Your task to perform on an android device: Open calendar and show me the third week of next month Image 0: 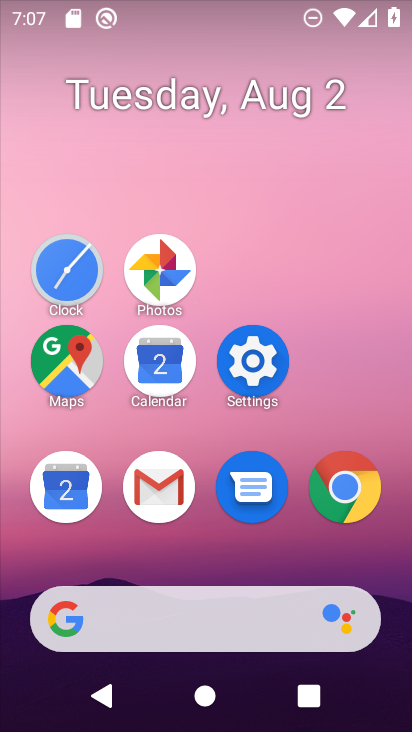
Step 0: click (156, 357)
Your task to perform on an android device: Open calendar and show me the third week of next month Image 1: 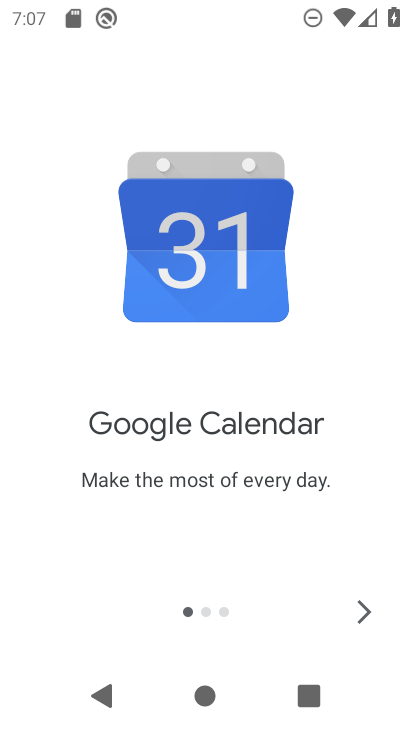
Step 1: click (365, 609)
Your task to perform on an android device: Open calendar and show me the third week of next month Image 2: 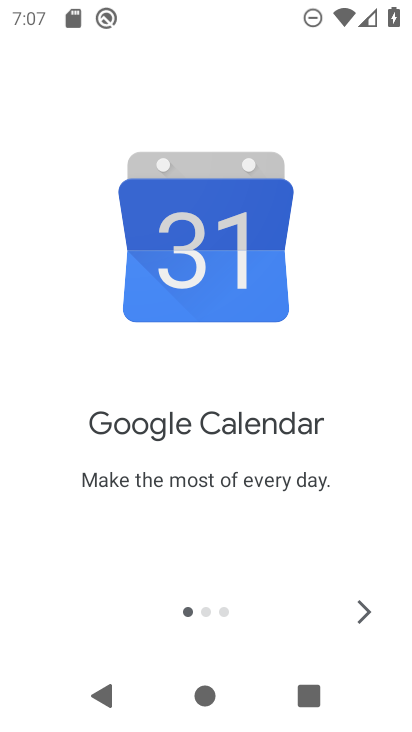
Step 2: click (365, 609)
Your task to perform on an android device: Open calendar and show me the third week of next month Image 3: 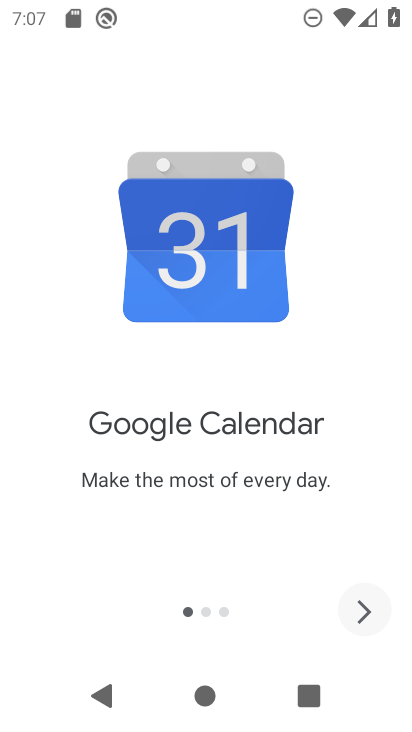
Step 3: click (365, 609)
Your task to perform on an android device: Open calendar and show me the third week of next month Image 4: 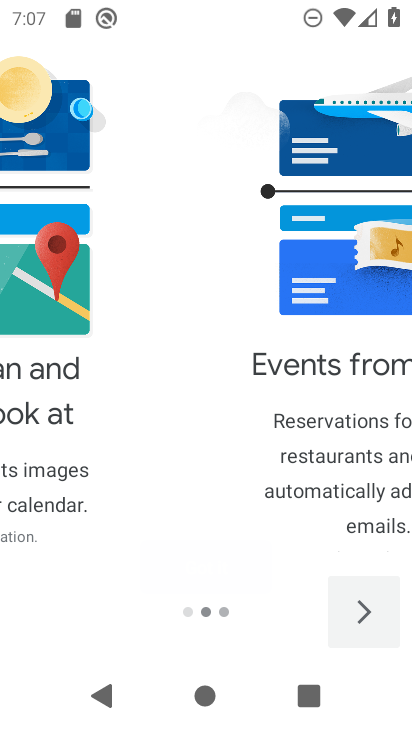
Step 4: click (365, 609)
Your task to perform on an android device: Open calendar and show me the third week of next month Image 5: 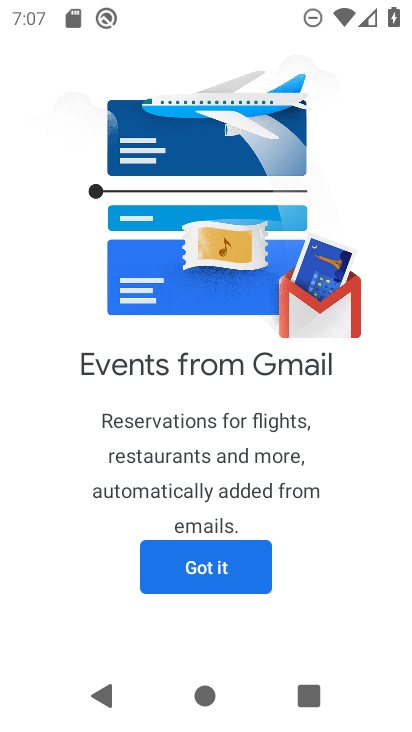
Step 5: click (212, 567)
Your task to perform on an android device: Open calendar and show me the third week of next month Image 6: 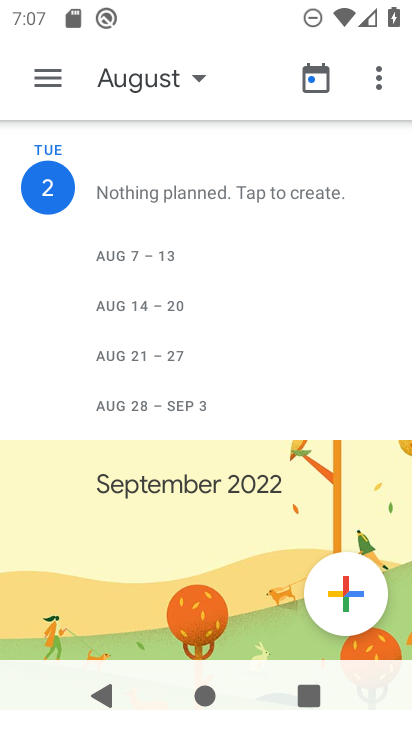
Step 6: click (43, 71)
Your task to perform on an android device: Open calendar and show me the third week of next month Image 7: 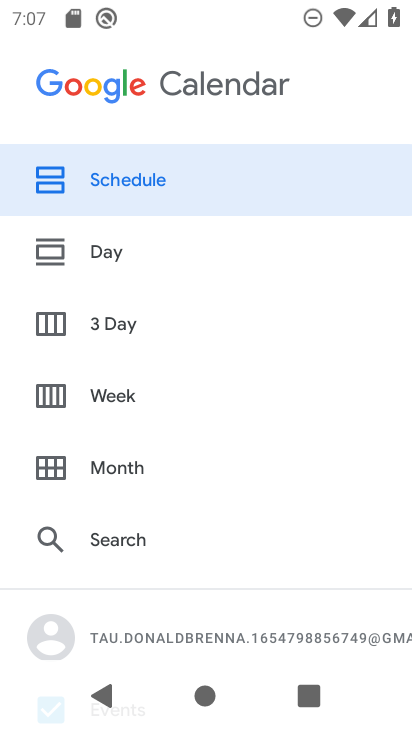
Step 7: click (115, 395)
Your task to perform on an android device: Open calendar and show me the third week of next month Image 8: 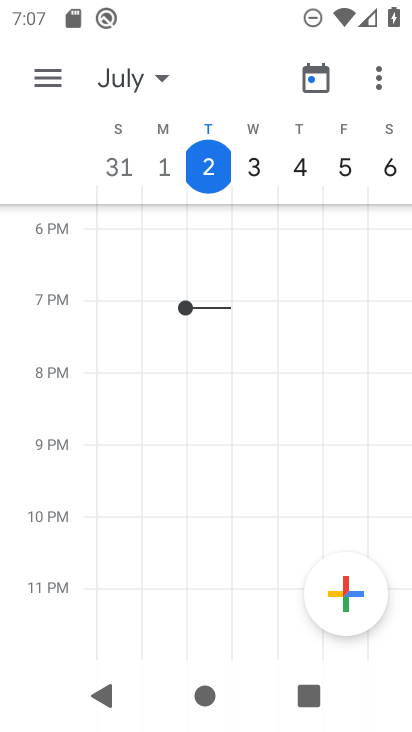
Step 8: click (165, 77)
Your task to perform on an android device: Open calendar and show me the third week of next month Image 9: 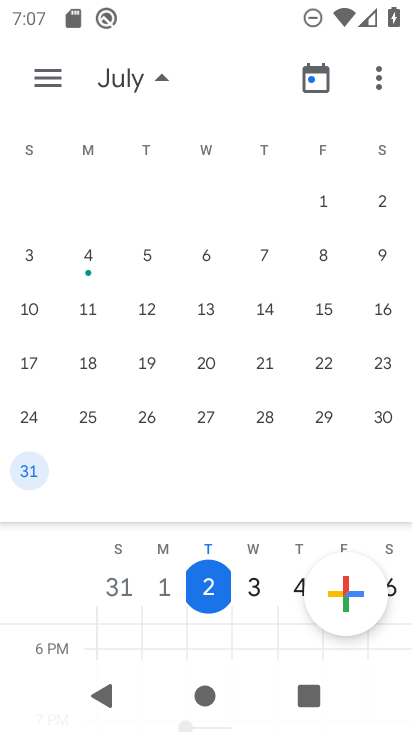
Step 9: drag from (387, 283) to (33, 284)
Your task to perform on an android device: Open calendar and show me the third week of next month Image 10: 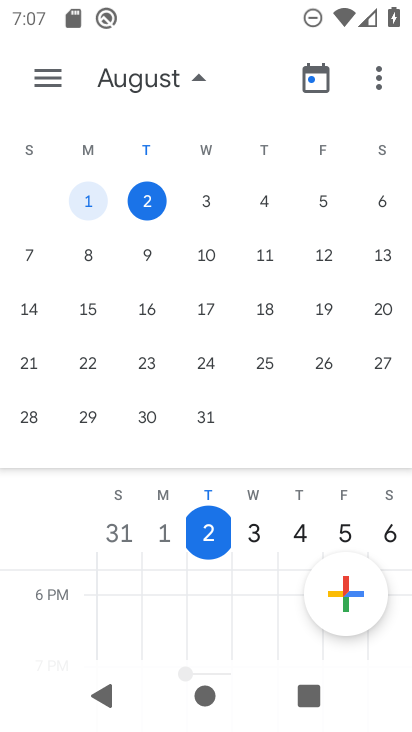
Step 10: drag from (387, 299) to (26, 306)
Your task to perform on an android device: Open calendar and show me the third week of next month Image 11: 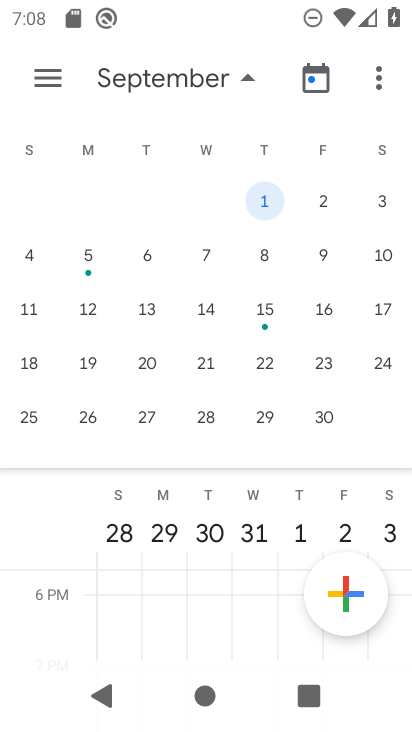
Step 11: click (153, 306)
Your task to perform on an android device: Open calendar and show me the third week of next month Image 12: 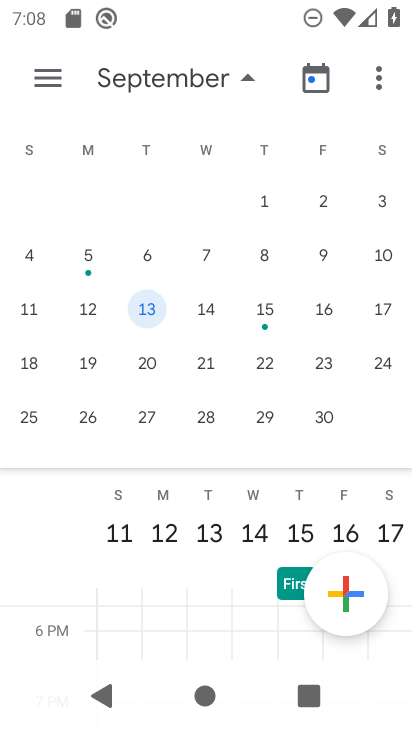
Step 12: task complete